Your task to perform on an android device: turn off translation in the chrome app Image 0: 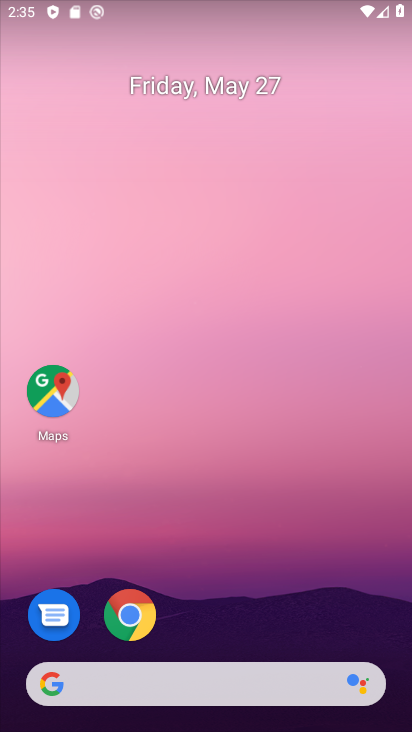
Step 0: click (167, 64)
Your task to perform on an android device: turn off translation in the chrome app Image 1: 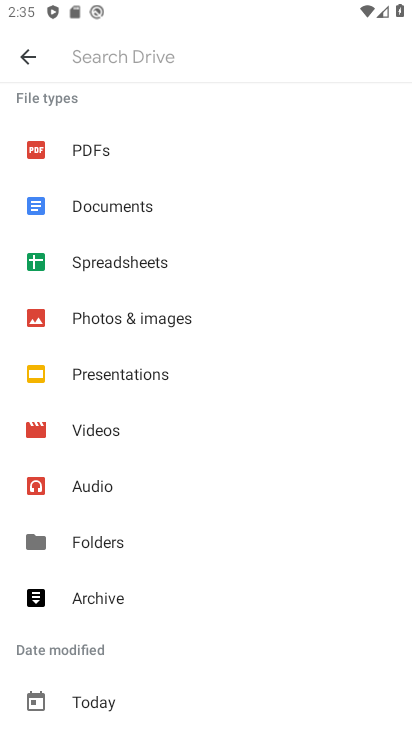
Step 1: press home button
Your task to perform on an android device: turn off translation in the chrome app Image 2: 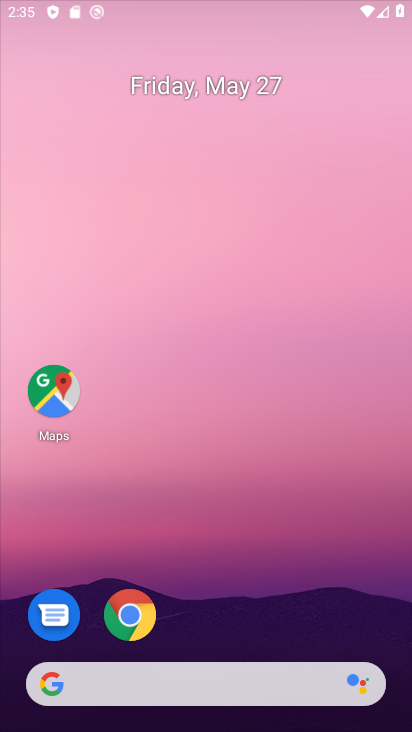
Step 2: drag from (305, 471) to (205, 11)
Your task to perform on an android device: turn off translation in the chrome app Image 3: 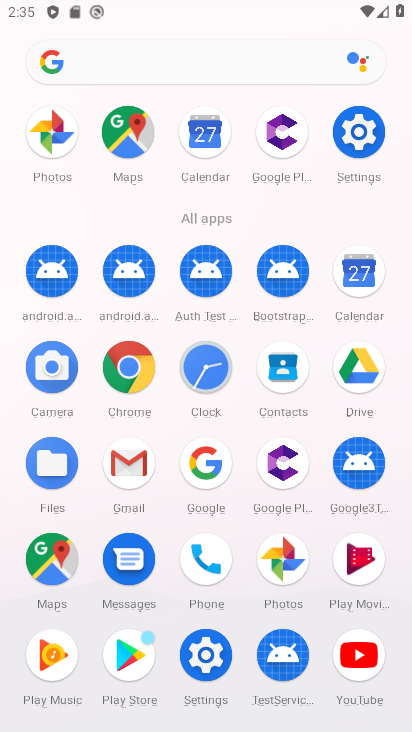
Step 3: click (144, 365)
Your task to perform on an android device: turn off translation in the chrome app Image 4: 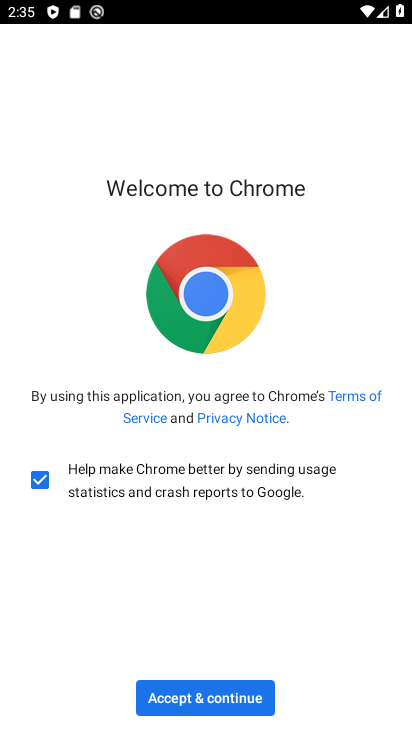
Step 4: click (230, 692)
Your task to perform on an android device: turn off translation in the chrome app Image 5: 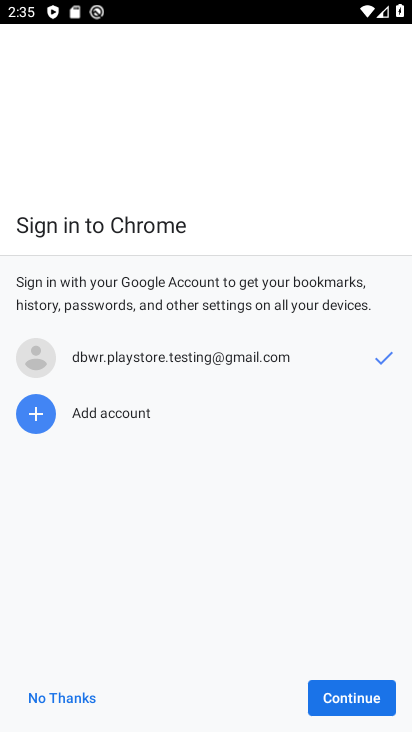
Step 5: click (352, 699)
Your task to perform on an android device: turn off translation in the chrome app Image 6: 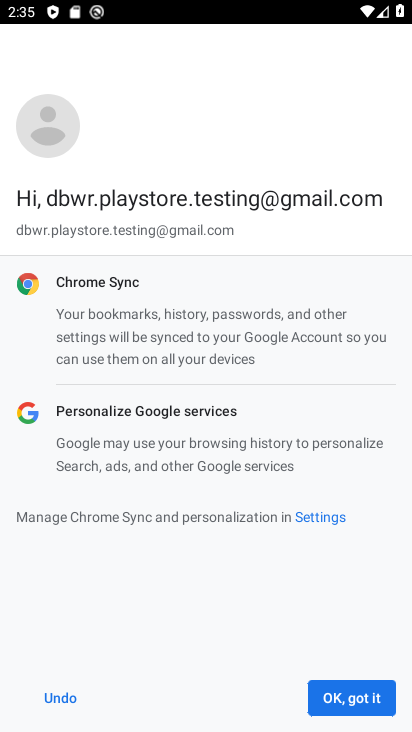
Step 6: click (368, 699)
Your task to perform on an android device: turn off translation in the chrome app Image 7: 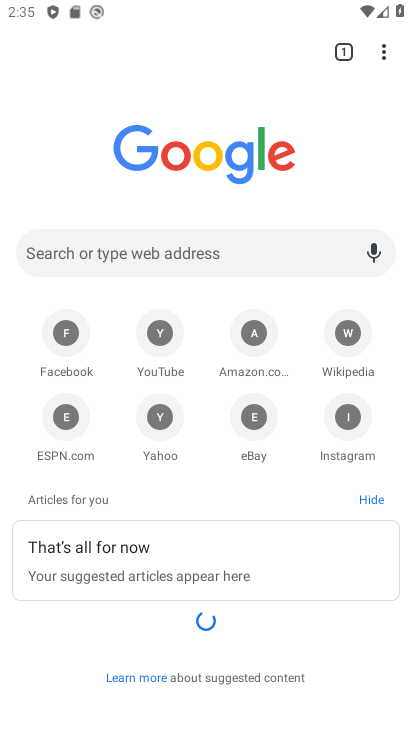
Step 7: click (381, 53)
Your task to perform on an android device: turn off translation in the chrome app Image 8: 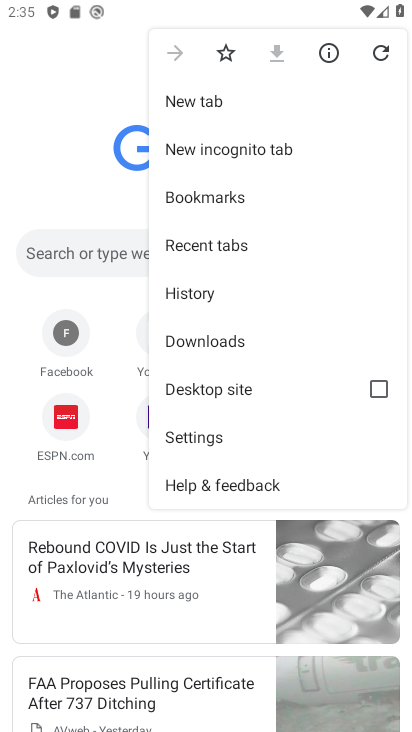
Step 8: click (228, 426)
Your task to perform on an android device: turn off translation in the chrome app Image 9: 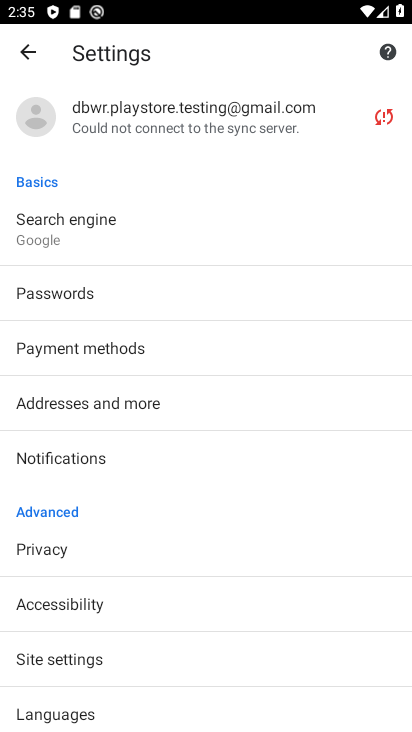
Step 9: drag from (142, 665) to (147, 293)
Your task to perform on an android device: turn off translation in the chrome app Image 10: 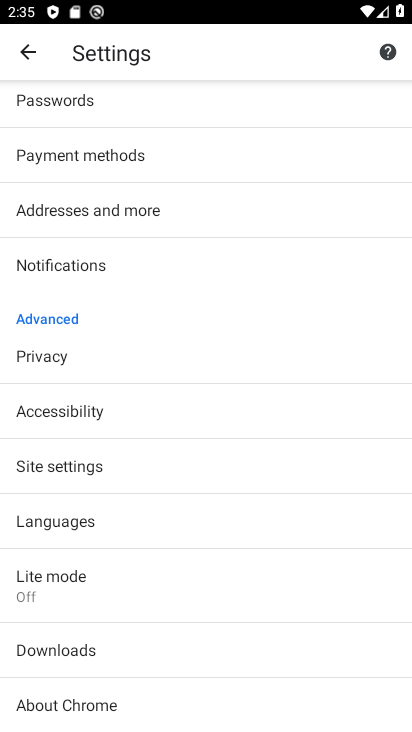
Step 10: click (109, 527)
Your task to perform on an android device: turn off translation in the chrome app Image 11: 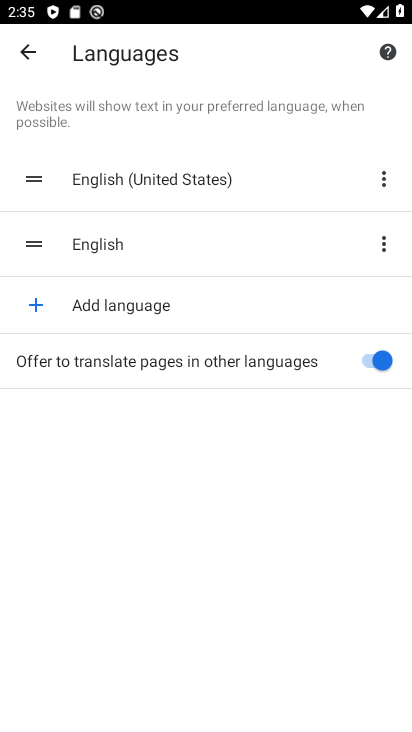
Step 11: click (380, 360)
Your task to perform on an android device: turn off translation in the chrome app Image 12: 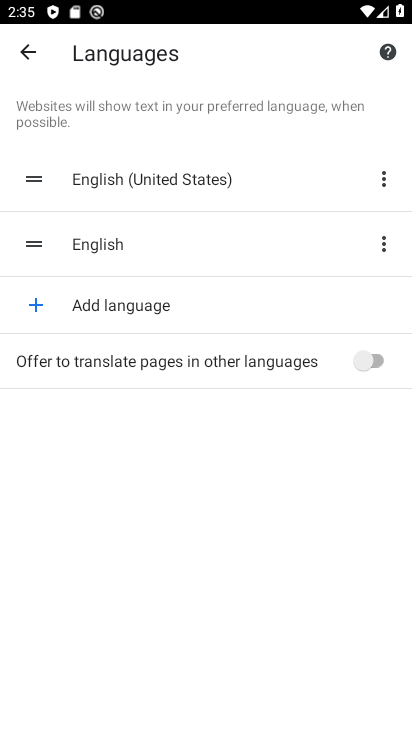
Step 12: task complete